Your task to perform on an android device: What is the recent news? Image 0: 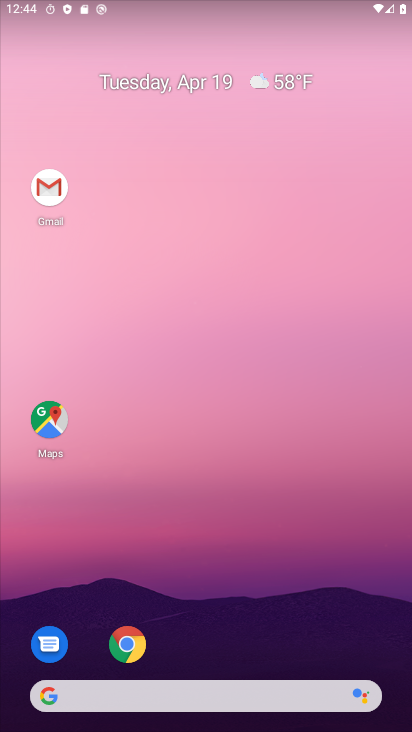
Step 0: click (137, 640)
Your task to perform on an android device: What is the recent news? Image 1: 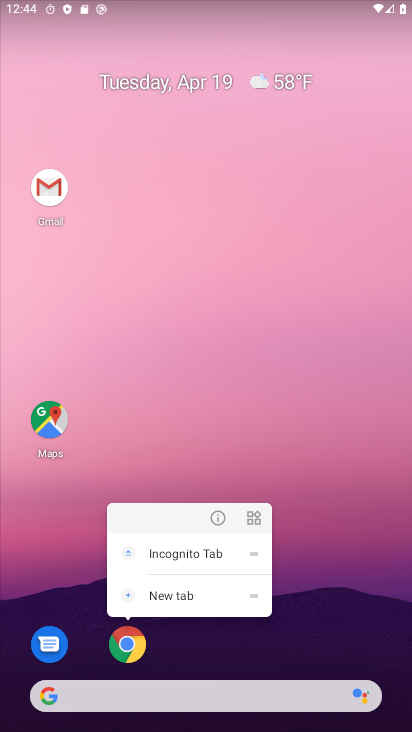
Step 1: click (136, 642)
Your task to perform on an android device: What is the recent news? Image 2: 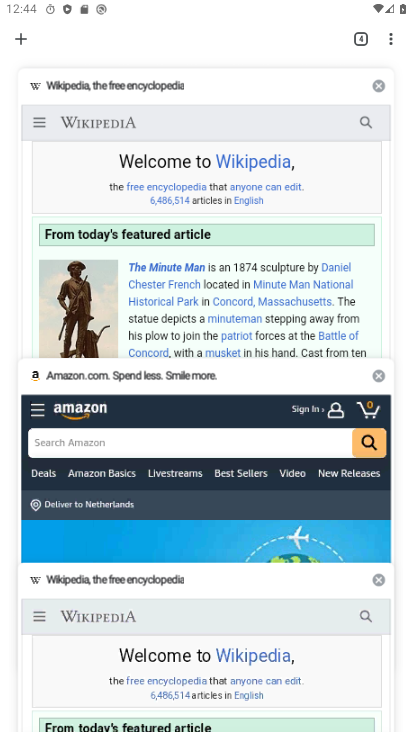
Step 2: click (356, 38)
Your task to perform on an android device: What is the recent news? Image 3: 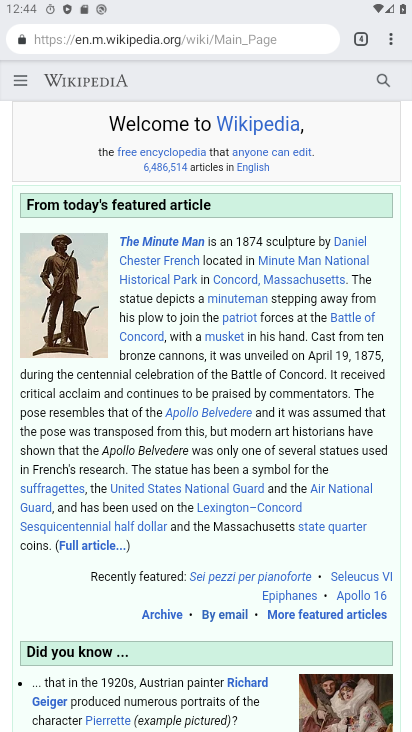
Step 3: click (364, 40)
Your task to perform on an android device: What is the recent news? Image 4: 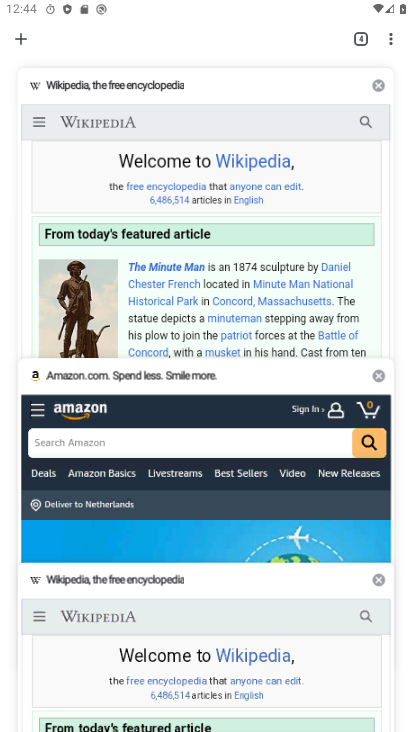
Step 4: click (20, 32)
Your task to perform on an android device: What is the recent news? Image 5: 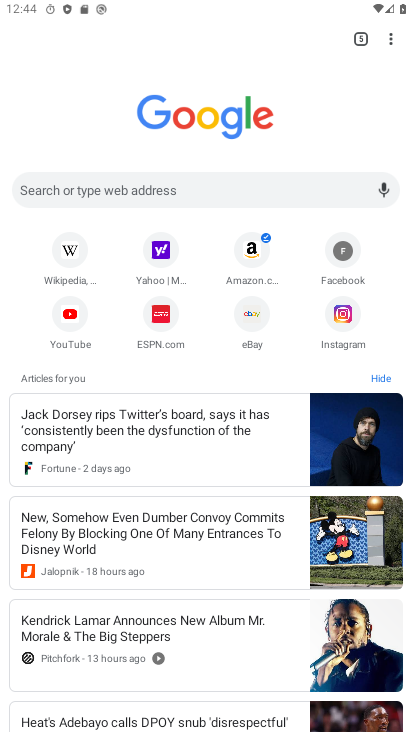
Step 5: click (182, 194)
Your task to perform on an android device: What is the recent news? Image 6: 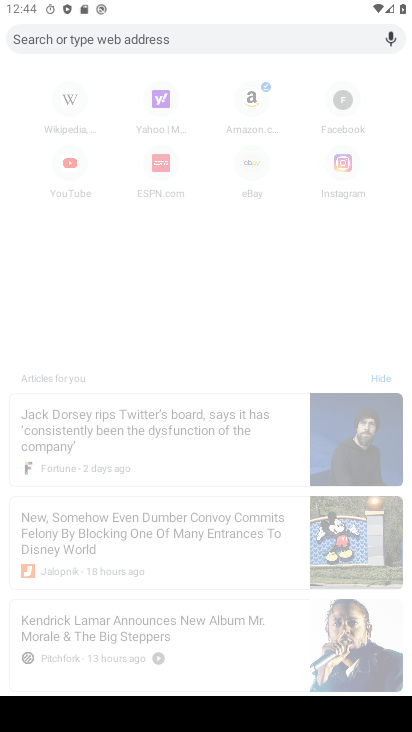
Step 6: type "recent news"
Your task to perform on an android device: What is the recent news? Image 7: 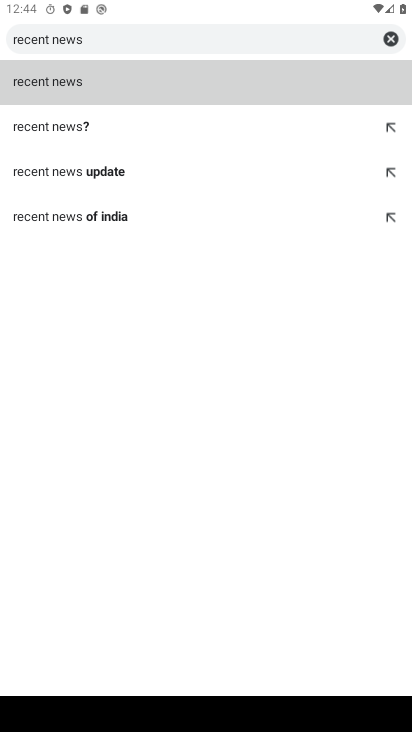
Step 7: click (51, 83)
Your task to perform on an android device: What is the recent news? Image 8: 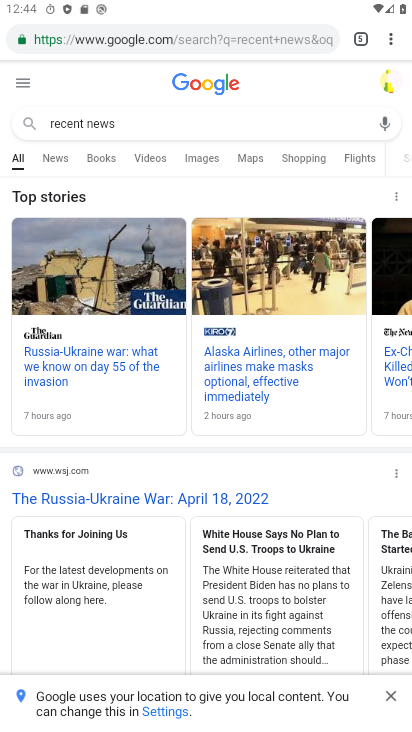
Step 8: task complete